Your task to perform on an android device: Go to Maps Image 0: 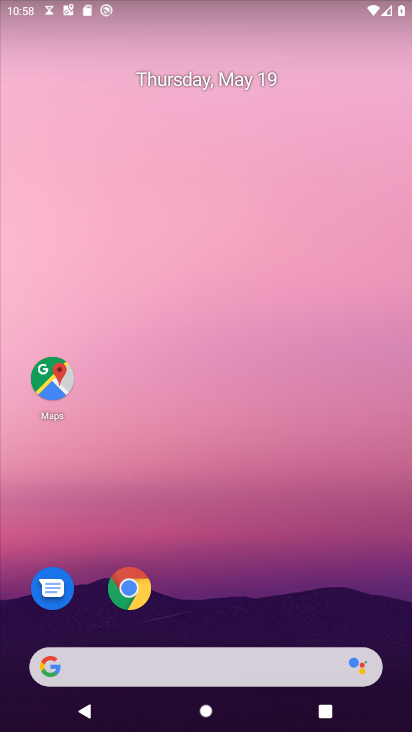
Step 0: drag from (262, 464) to (218, 52)
Your task to perform on an android device: Go to Maps Image 1: 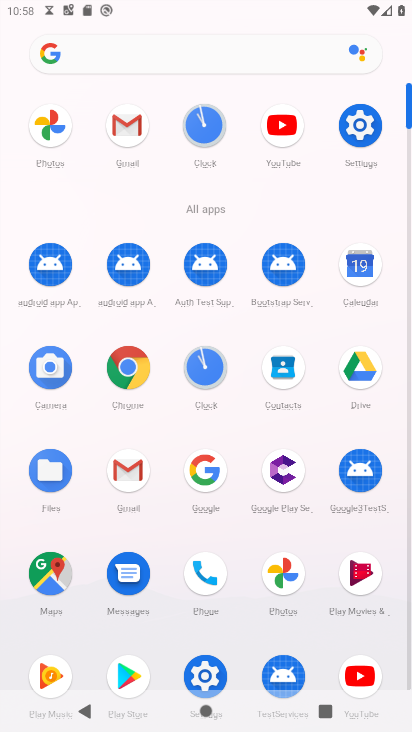
Step 1: click (48, 577)
Your task to perform on an android device: Go to Maps Image 2: 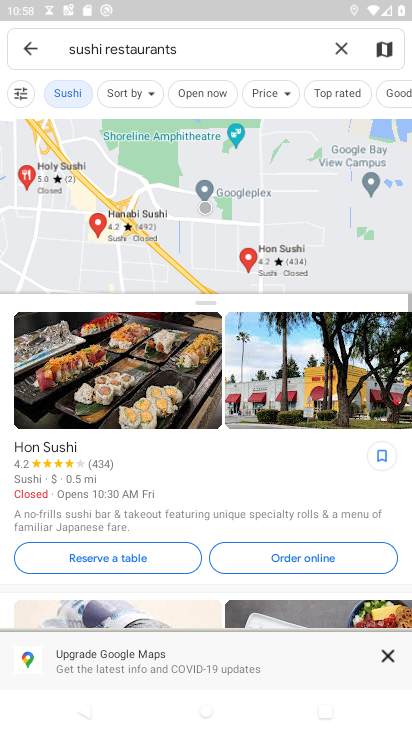
Step 2: task complete